Your task to perform on an android device: check the backup settings in the google photos Image 0: 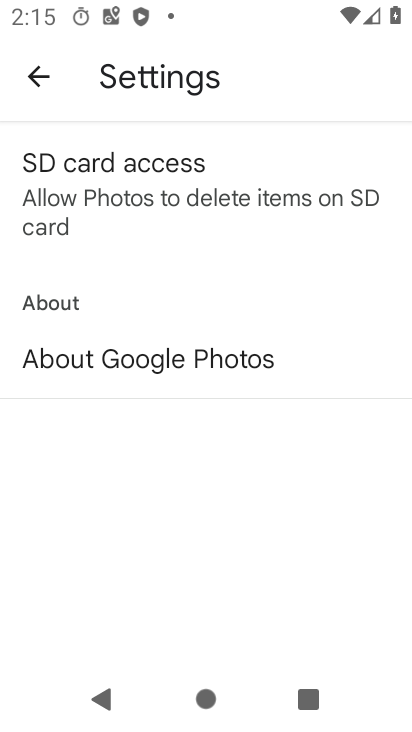
Step 0: press home button
Your task to perform on an android device: check the backup settings in the google photos Image 1: 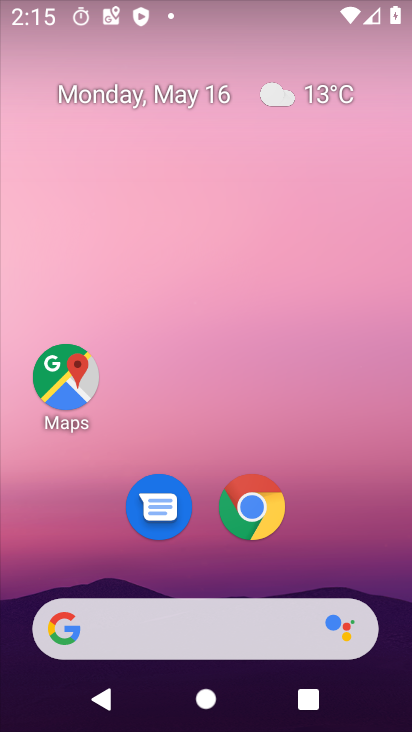
Step 1: drag from (384, 565) to (345, 142)
Your task to perform on an android device: check the backup settings in the google photos Image 2: 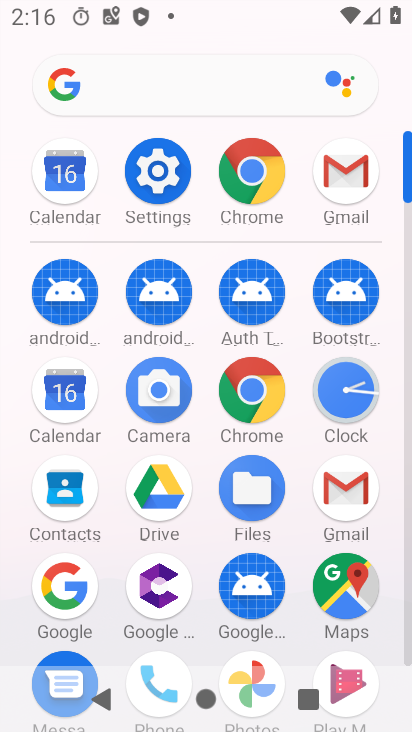
Step 2: drag from (201, 616) to (201, 414)
Your task to perform on an android device: check the backup settings in the google photos Image 3: 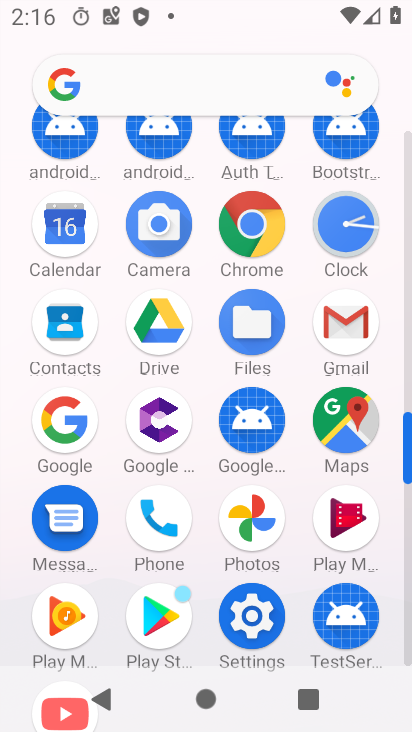
Step 3: click (267, 519)
Your task to perform on an android device: check the backup settings in the google photos Image 4: 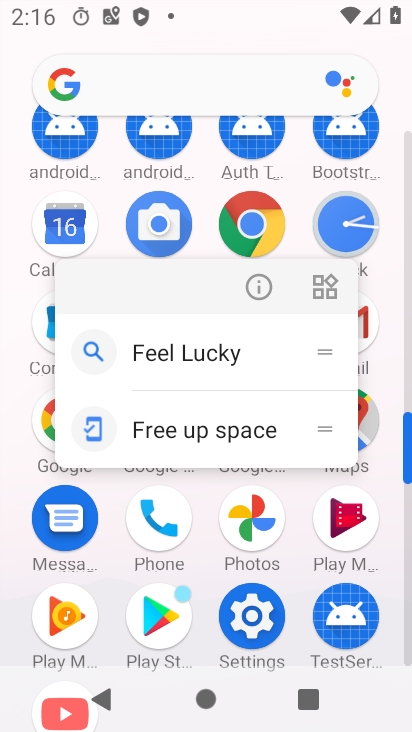
Step 4: click (250, 543)
Your task to perform on an android device: check the backup settings in the google photos Image 5: 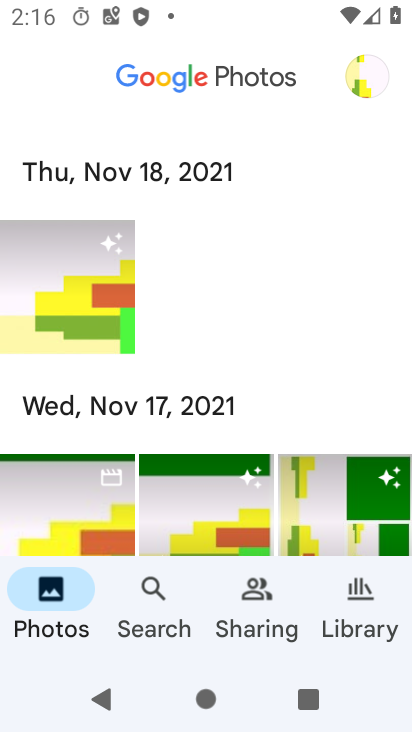
Step 5: click (361, 85)
Your task to perform on an android device: check the backup settings in the google photos Image 6: 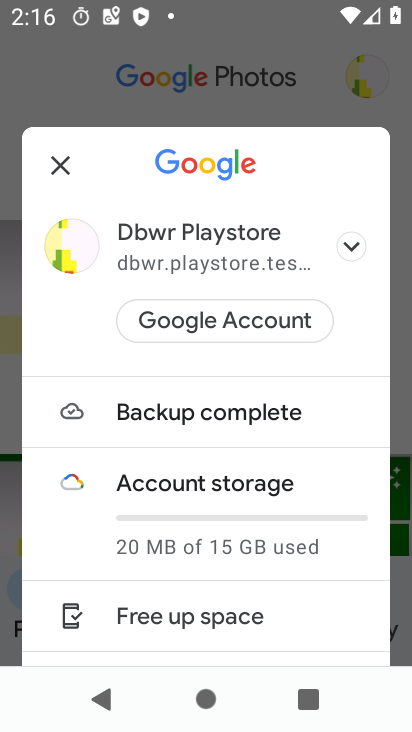
Step 6: drag from (314, 615) to (323, 426)
Your task to perform on an android device: check the backup settings in the google photos Image 7: 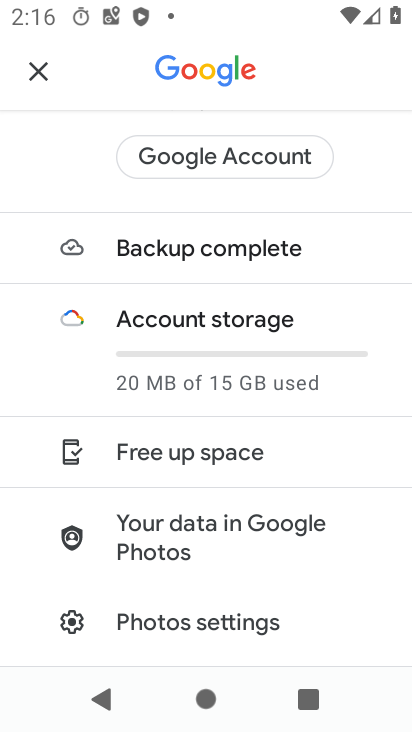
Step 7: click (265, 629)
Your task to perform on an android device: check the backup settings in the google photos Image 8: 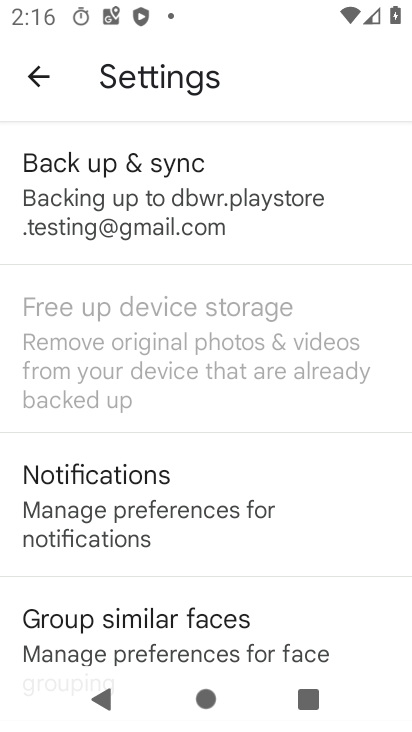
Step 8: click (196, 198)
Your task to perform on an android device: check the backup settings in the google photos Image 9: 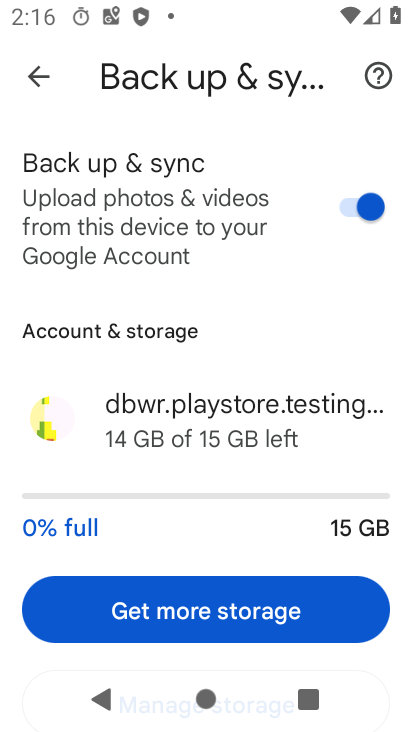
Step 9: task complete